Your task to perform on an android device: Go to CNN.com Image 0: 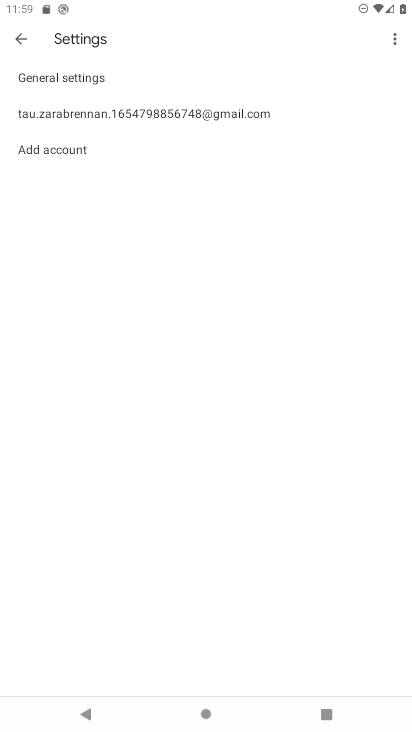
Step 0: press home button
Your task to perform on an android device: Go to CNN.com Image 1: 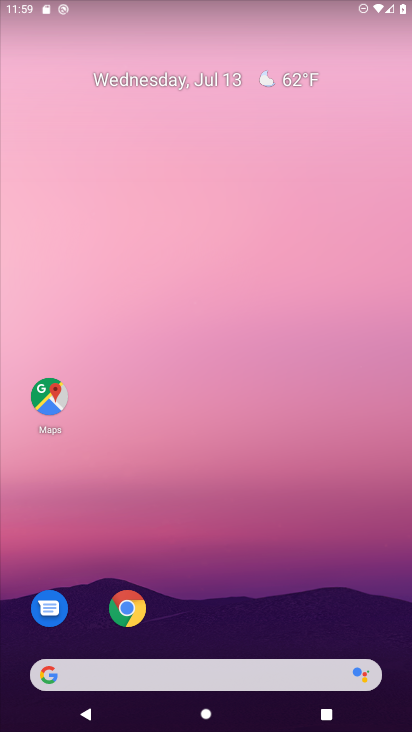
Step 1: drag from (234, 719) to (244, 105)
Your task to perform on an android device: Go to CNN.com Image 2: 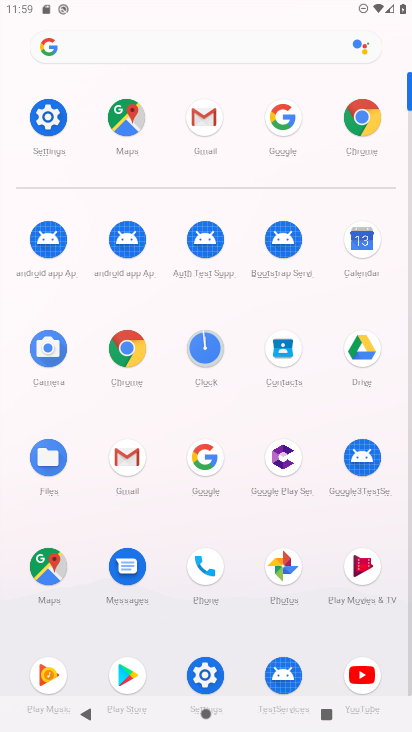
Step 2: click (363, 116)
Your task to perform on an android device: Go to CNN.com Image 3: 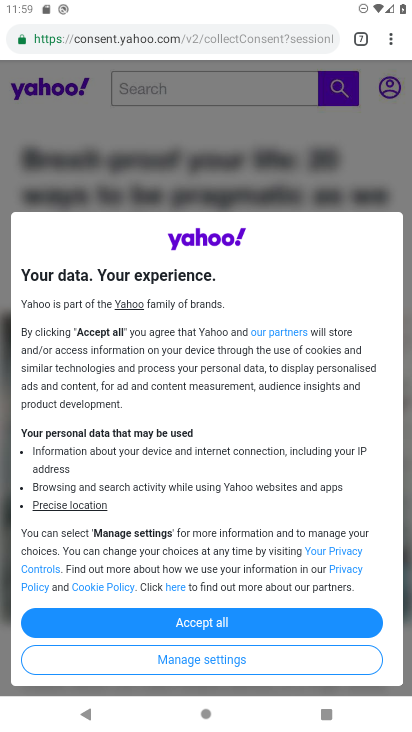
Step 3: click (391, 41)
Your task to perform on an android device: Go to CNN.com Image 4: 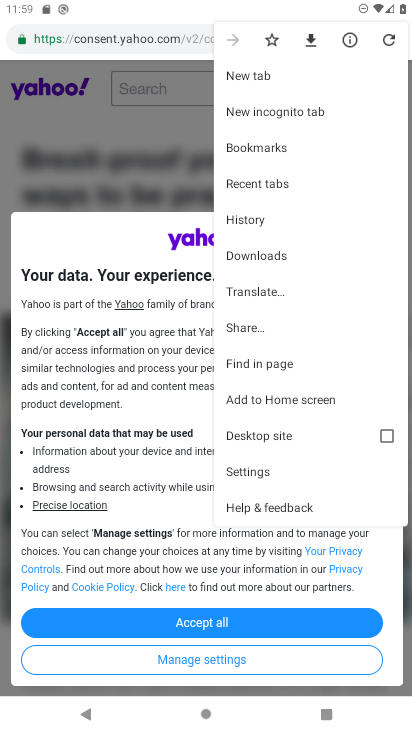
Step 4: click (258, 73)
Your task to perform on an android device: Go to CNN.com Image 5: 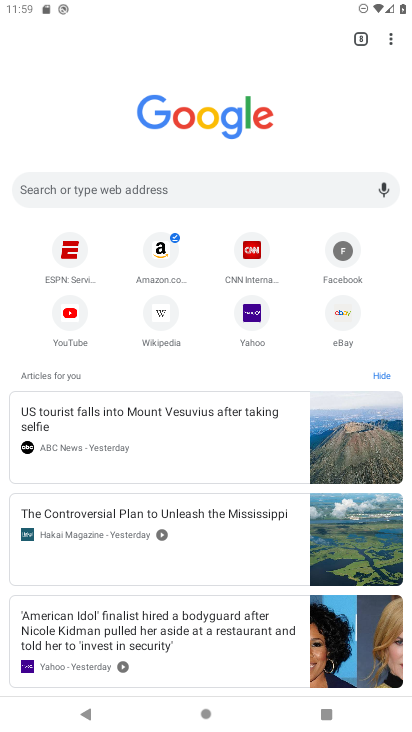
Step 5: click (252, 250)
Your task to perform on an android device: Go to CNN.com Image 6: 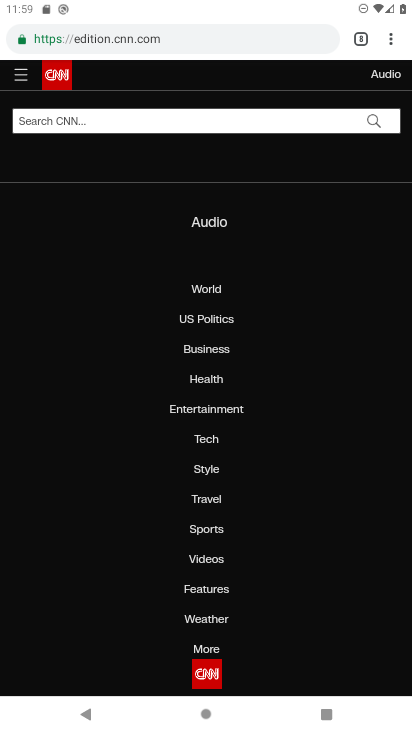
Step 6: task complete